Your task to perform on an android device: set the stopwatch Image 0: 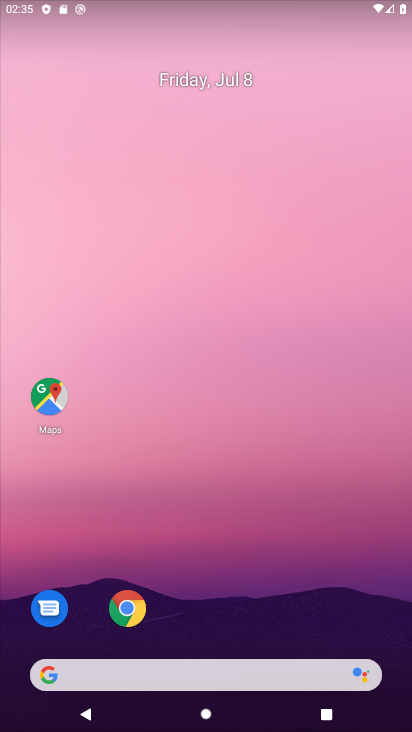
Step 0: drag from (211, 619) to (207, 131)
Your task to perform on an android device: set the stopwatch Image 1: 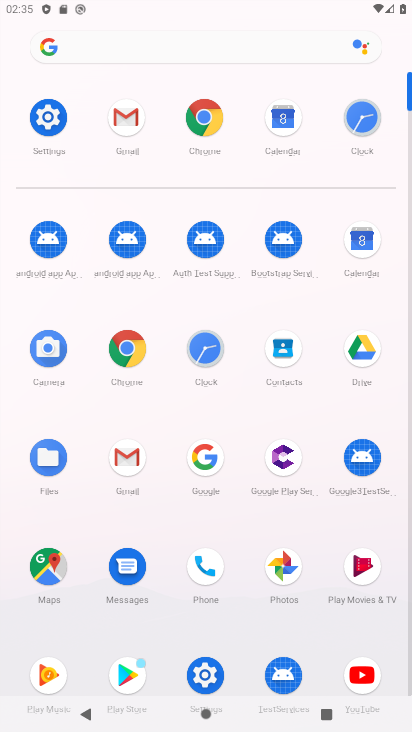
Step 1: click (203, 349)
Your task to perform on an android device: set the stopwatch Image 2: 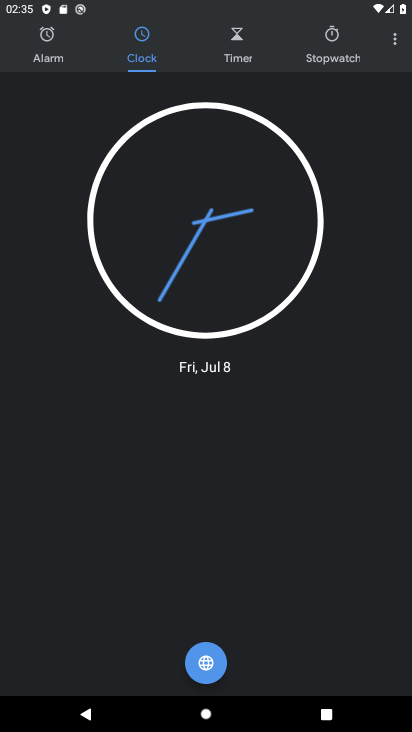
Step 2: click (343, 34)
Your task to perform on an android device: set the stopwatch Image 3: 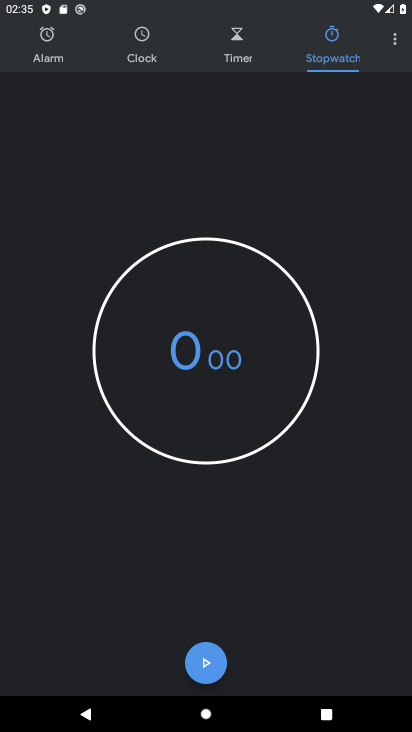
Step 3: click (204, 646)
Your task to perform on an android device: set the stopwatch Image 4: 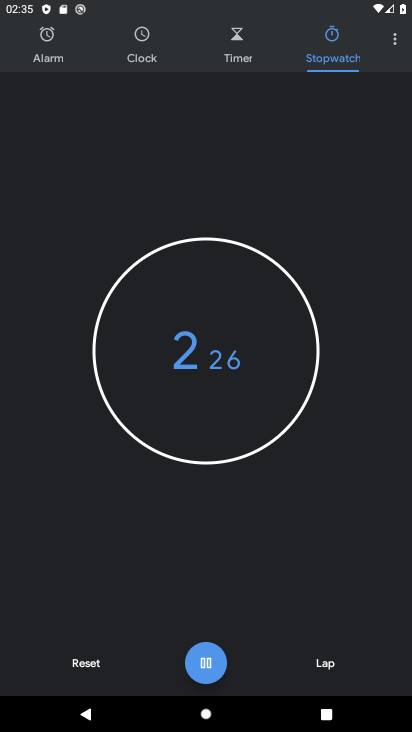
Step 4: task complete